Your task to perform on an android device: Is it going to rain tomorrow? Image 0: 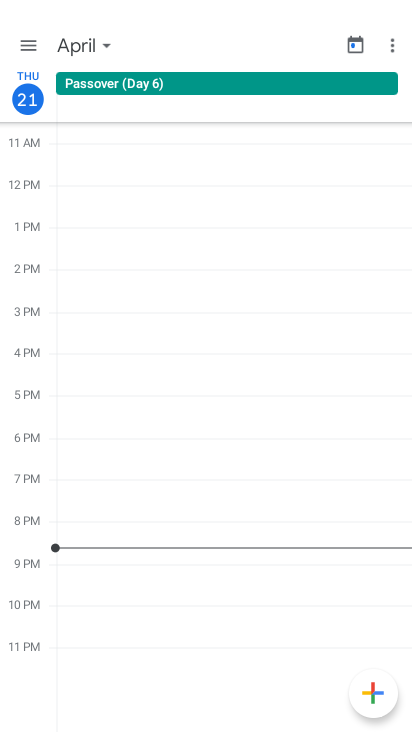
Step 0: press home button
Your task to perform on an android device: Is it going to rain tomorrow? Image 1: 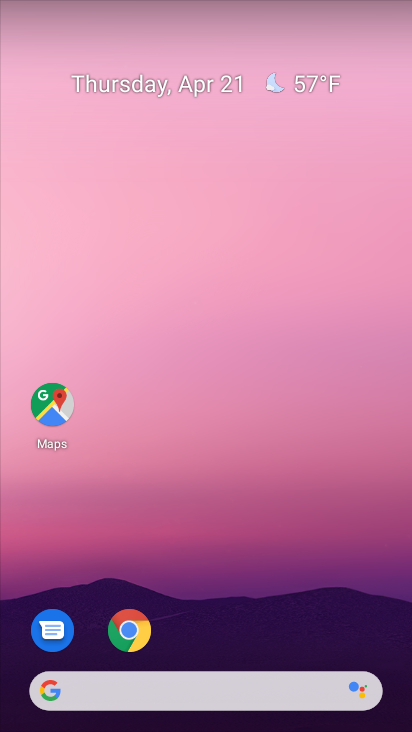
Step 1: drag from (292, 618) to (215, 1)
Your task to perform on an android device: Is it going to rain tomorrow? Image 2: 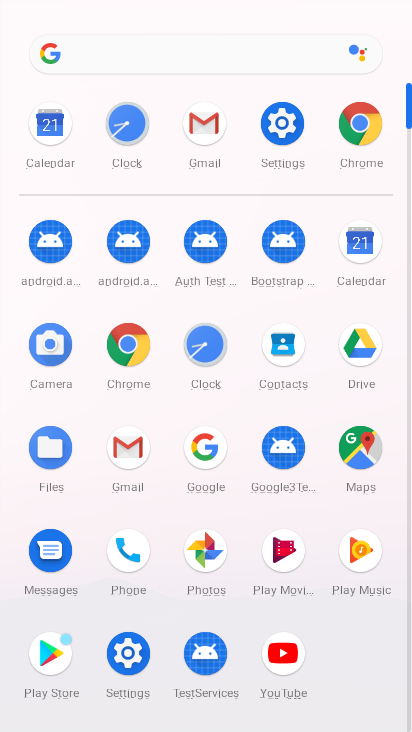
Step 2: press home button
Your task to perform on an android device: Is it going to rain tomorrow? Image 3: 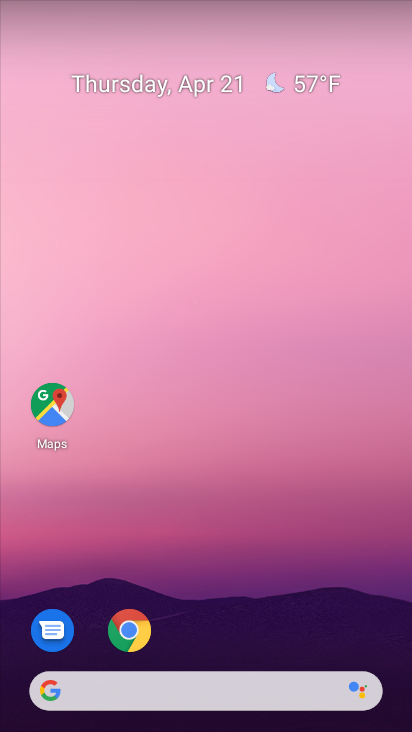
Step 3: click (185, 690)
Your task to perform on an android device: Is it going to rain tomorrow? Image 4: 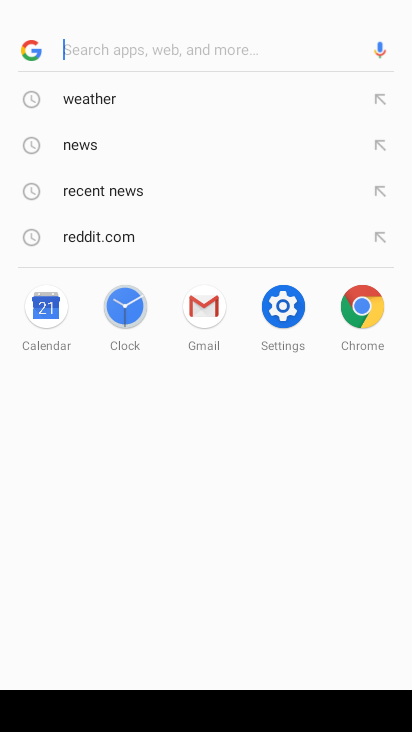
Step 4: click (159, 90)
Your task to perform on an android device: Is it going to rain tomorrow? Image 5: 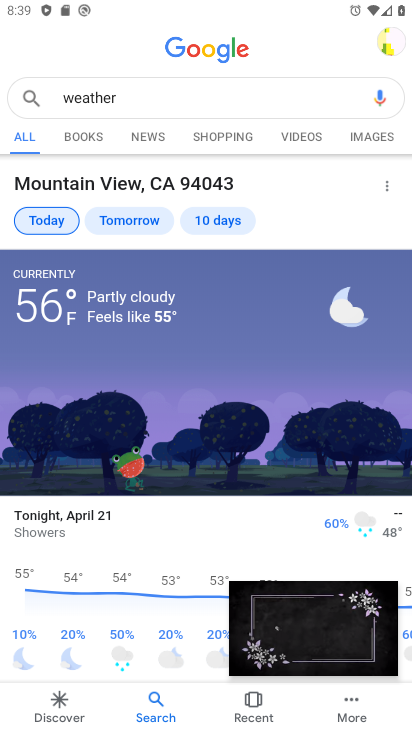
Step 5: click (128, 218)
Your task to perform on an android device: Is it going to rain tomorrow? Image 6: 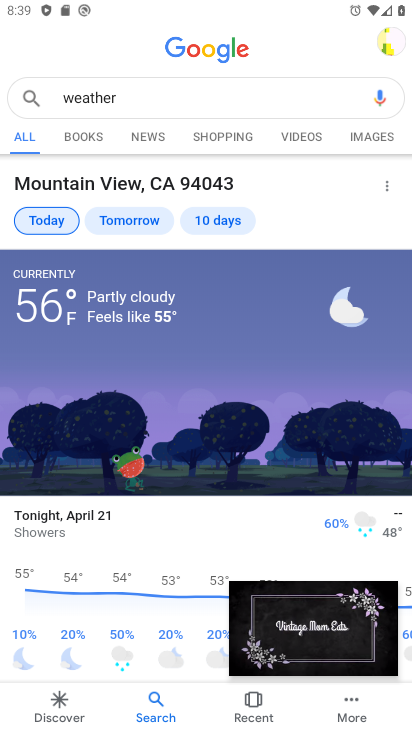
Step 6: click (128, 222)
Your task to perform on an android device: Is it going to rain tomorrow? Image 7: 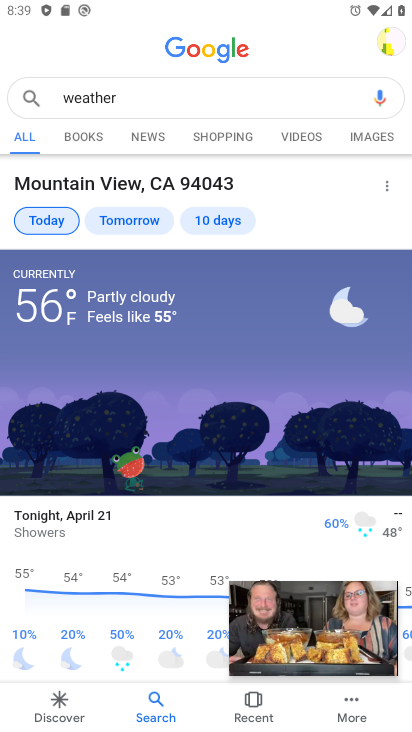
Step 7: click (128, 222)
Your task to perform on an android device: Is it going to rain tomorrow? Image 8: 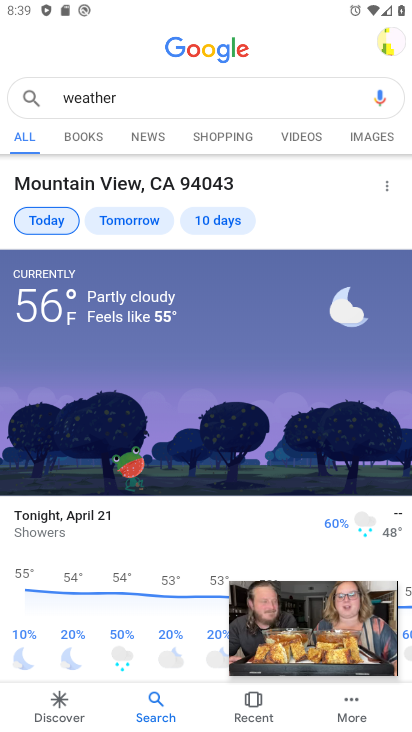
Step 8: click (128, 222)
Your task to perform on an android device: Is it going to rain tomorrow? Image 9: 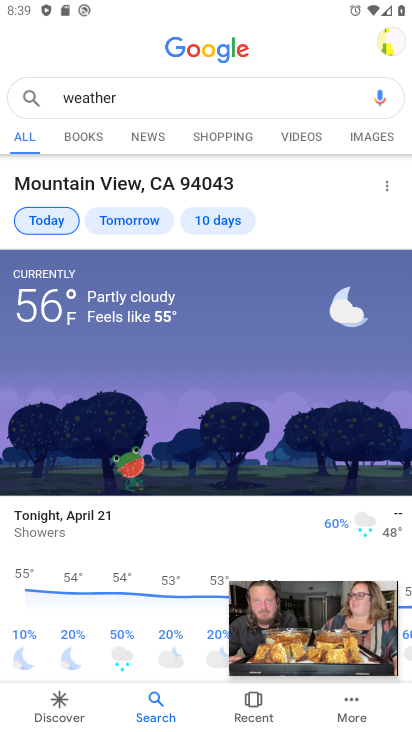
Step 9: click (125, 223)
Your task to perform on an android device: Is it going to rain tomorrow? Image 10: 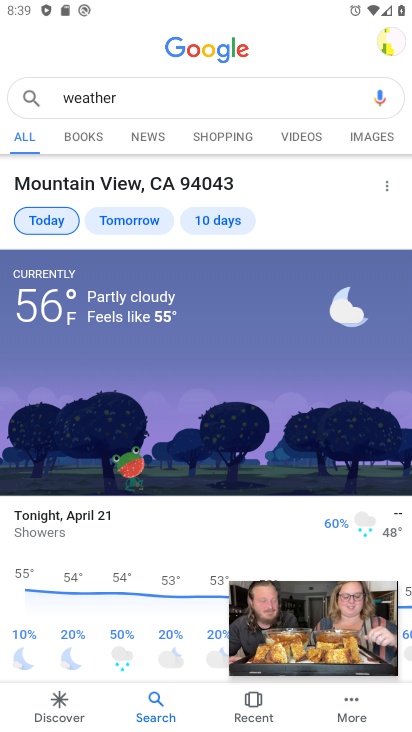
Step 10: click (125, 223)
Your task to perform on an android device: Is it going to rain tomorrow? Image 11: 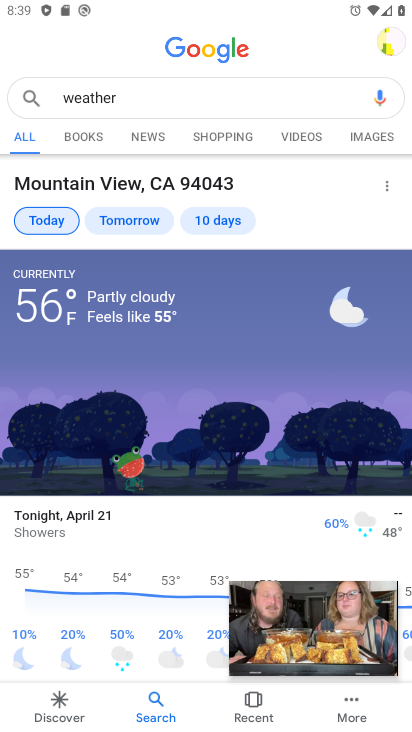
Step 11: click (138, 222)
Your task to perform on an android device: Is it going to rain tomorrow? Image 12: 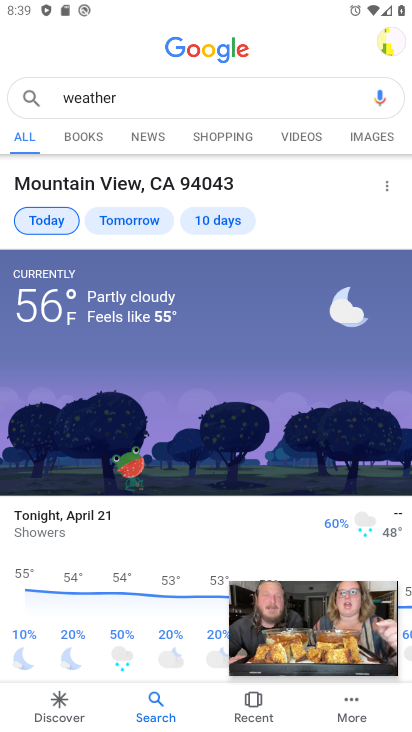
Step 12: click (138, 222)
Your task to perform on an android device: Is it going to rain tomorrow? Image 13: 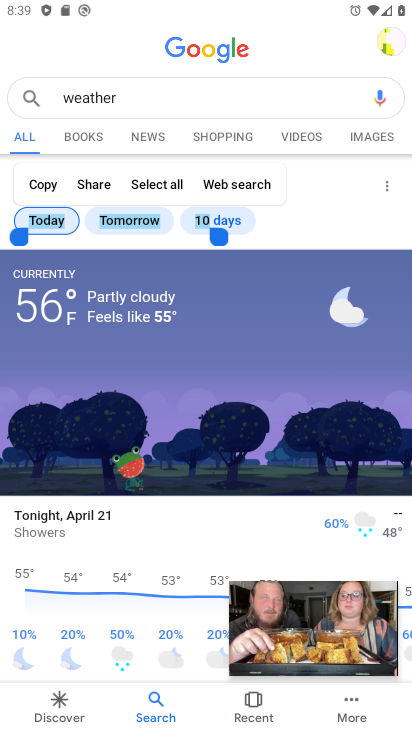
Step 13: click (131, 225)
Your task to perform on an android device: Is it going to rain tomorrow? Image 14: 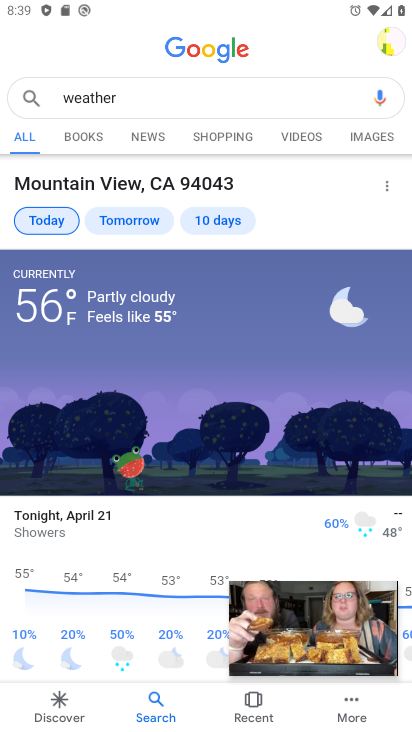
Step 14: click (131, 225)
Your task to perform on an android device: Is it going to rain tomorrow? Image 15: 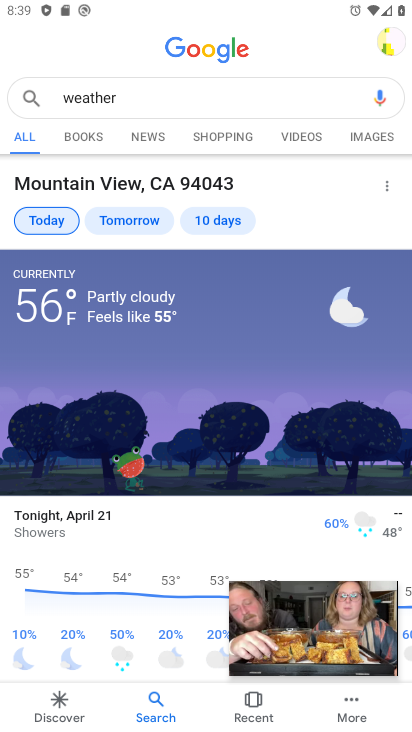
Step 15: task complete